Your task to perform on an android device: turn pop-ups off in chrome Image 0: 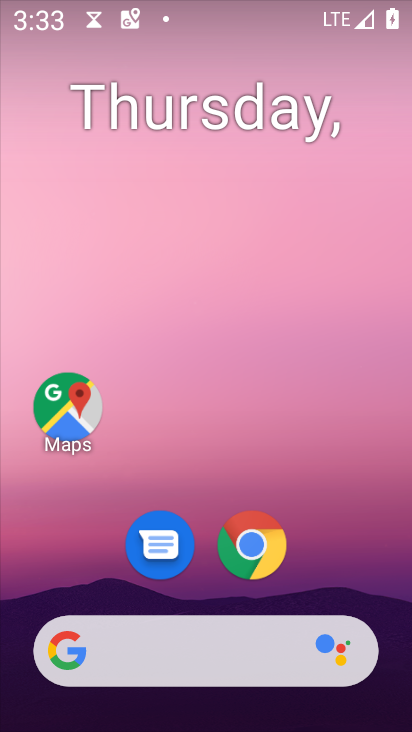
Step 0: click (270, 540)
Your task to perform on an android device: turn pop-ups off in chrome Image 1: 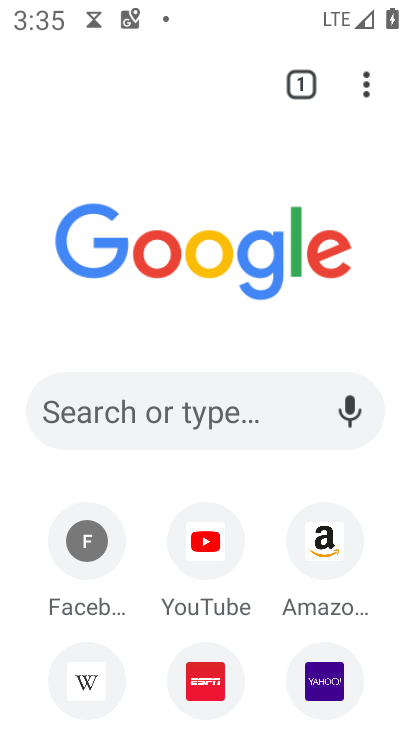
Step 1: drag from (360, 75) to (119, 608)
Your task to perform on an android device: turn pop-ups off in chrome Image 2: 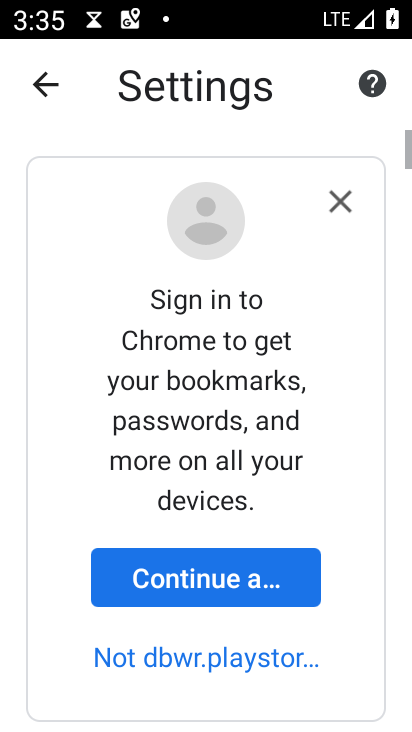
Step 2: drag from (361, 572) to (321, 329)
Your task to perform on an android device: turn pop-ups off in chrome Image 3: 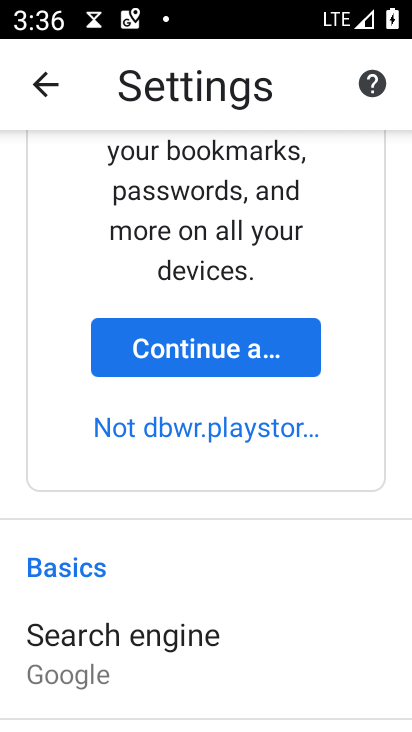
Step 3: drag from (241, 616) to (282, 260)
Your task to perform on an android device: turn pop-ups off in chrome Image 4: 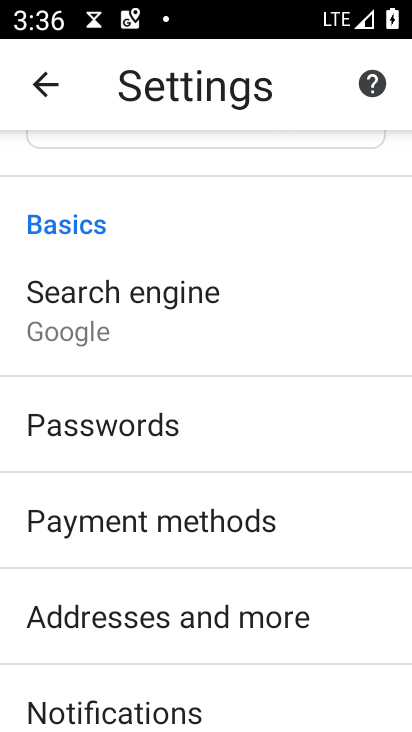
Step 4: drag from (232, 633) to (233, 244)
Your task to perform on an android device: turn pop-ups off in chrome Image 5: 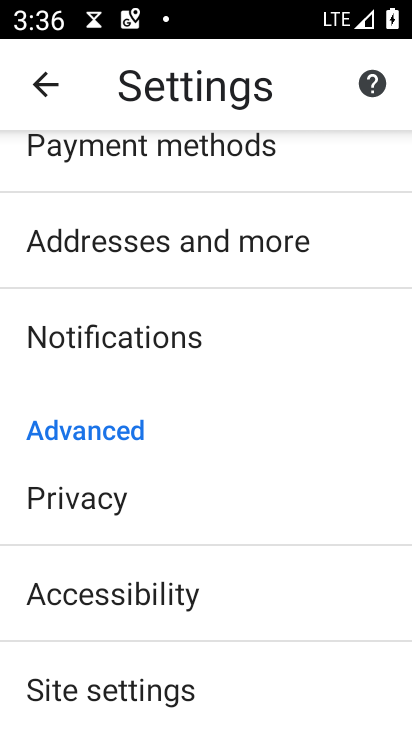
Step 5: drag from (199, 556) to (238, 247)
Your task to perform on an android device: turn pop-ups off in chrome Image 6: 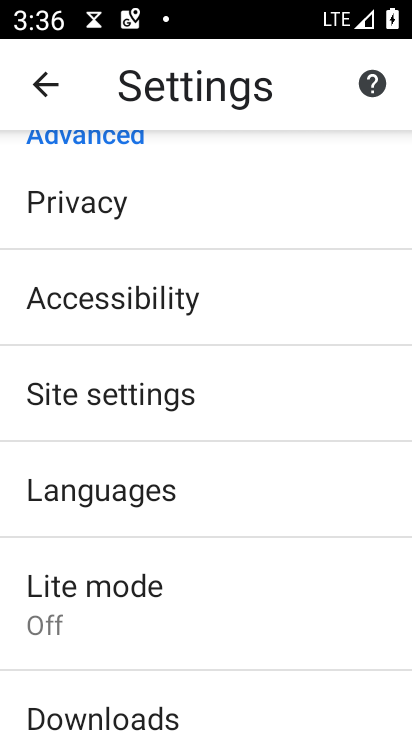
Step 6: click (109, 387)
Your task to perform on an android device: turn pop-ups off in chrome Image 7: 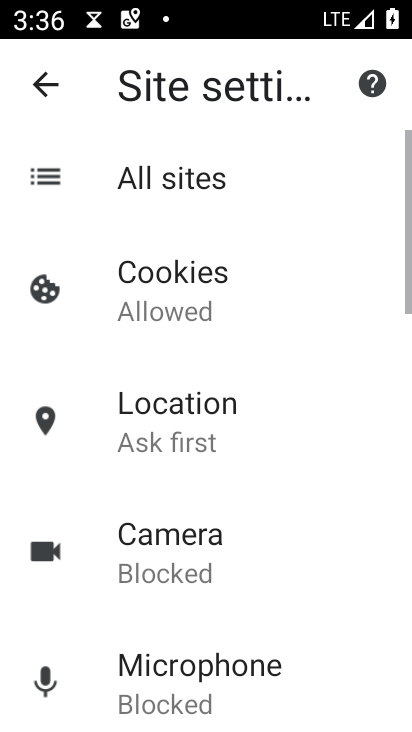
Step 7: drag from (194, 587) to (265, 192)
Your task to perform on an android device: turn pop-ups off in chrome Image 8: 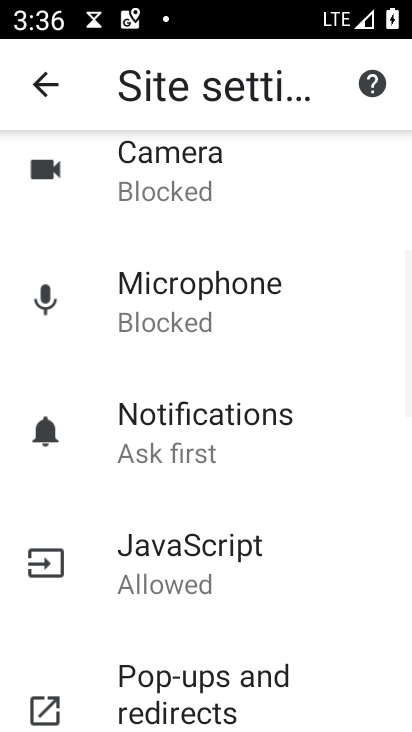
Step 8: drag from (250, 625) to (279, 262)
Your task to perform on an android device: turn pop-ups off in chrome Image 9: 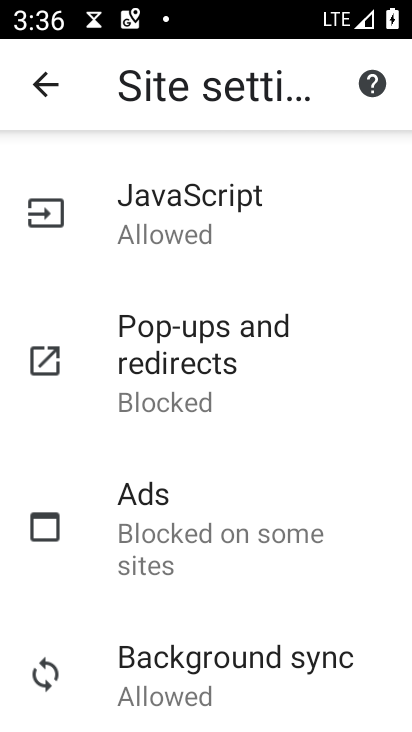
Step 9: click (168, 338)
Your task to perform on an android device: turn pop-ups off in chrome Image 10: 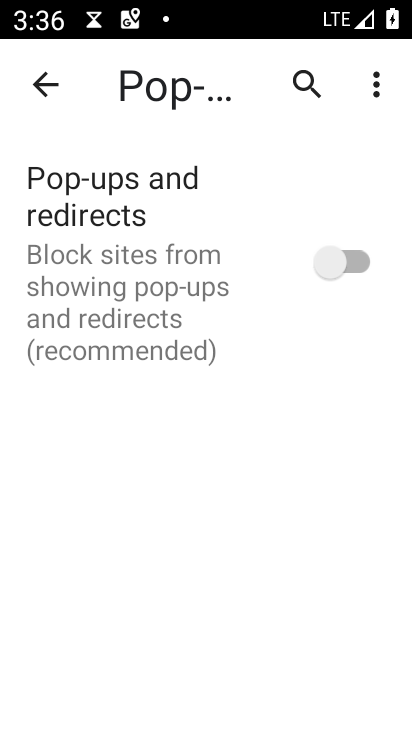
Step 10: task complete